Your task to perform on an android device: open sync settings in chrome Image 0: 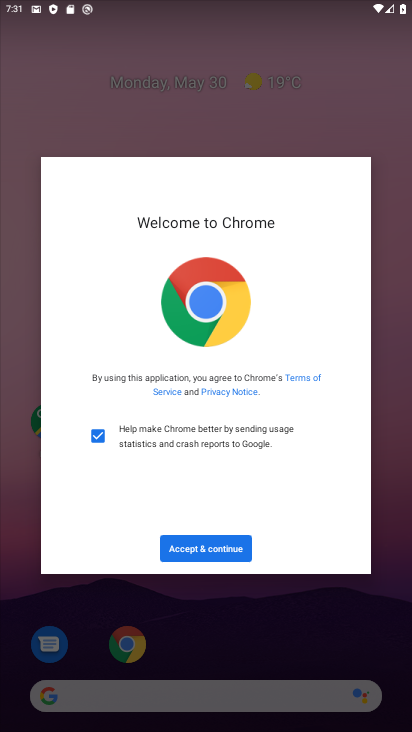
Step 0: click (170, 550)
Your task to perform on an android device: open sync settings in chrome Image 1: 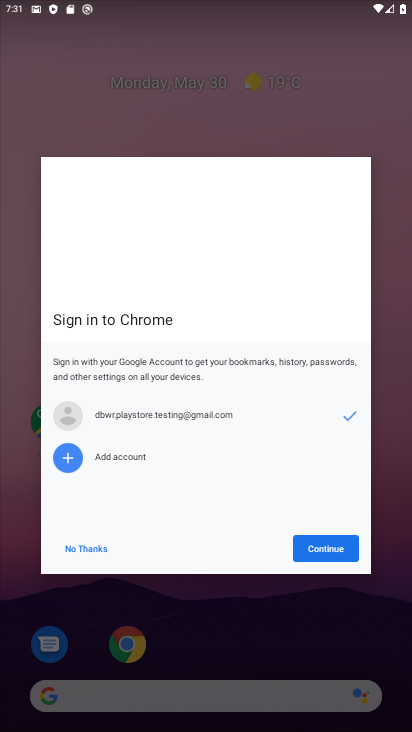
Step 1: click (335, 549)
Your task to perform on an android device: open sync settings in chrome Image 2: 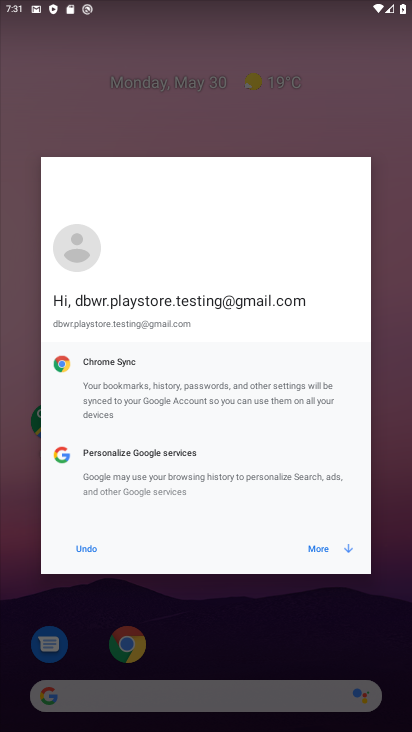
Step 2: click (322, 554)
Your task to perform on an android device: open sync settings in chrome Image 3: 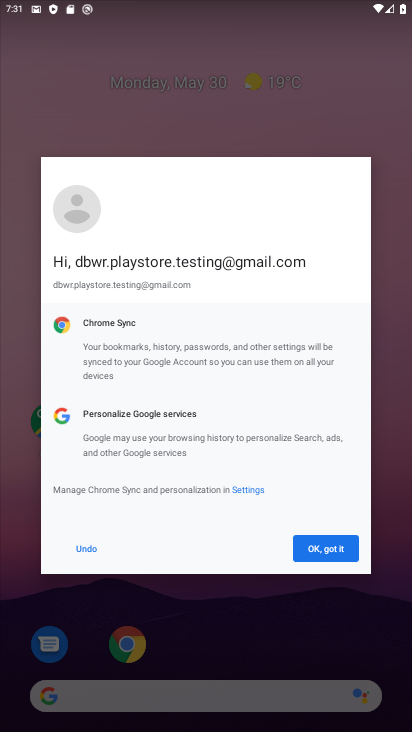
Step 3: click (322, 551)
Your task to perform on an android device: open sync settings in chrome Image 4: 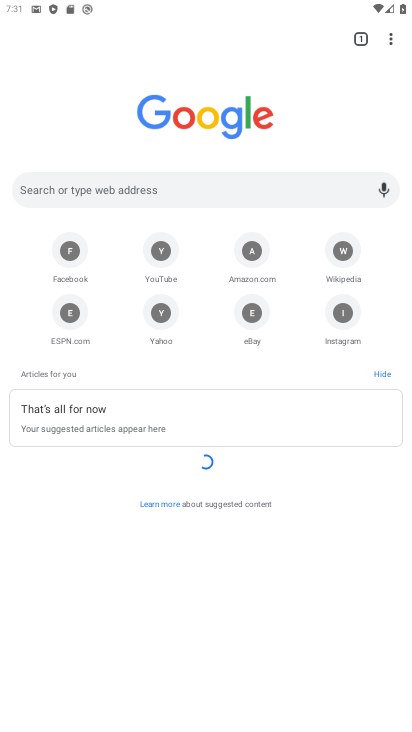
Step 4: press home button
Your task to perform on an android device: open sync settings in chrome Image 5: 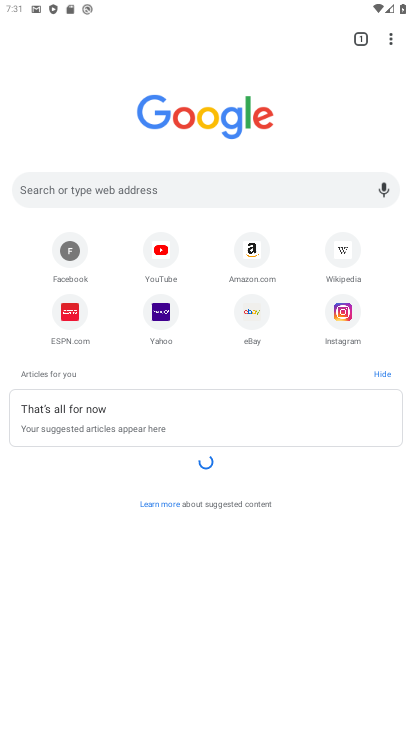
Step 5: press home button
Your task to perform on an android device: open sync settings in chrome Image 6: 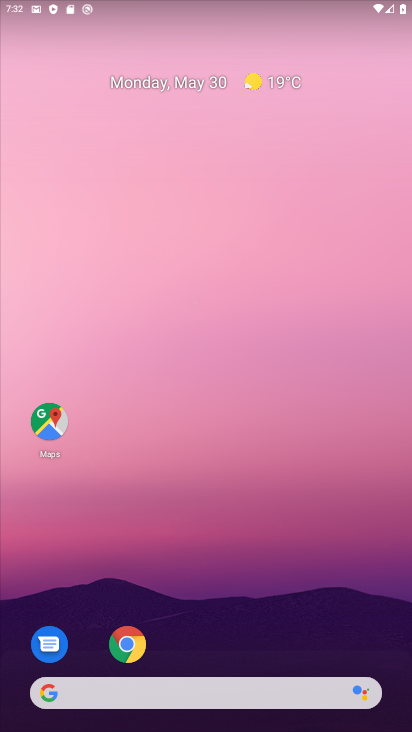
Step 6: drag from (221, 626) to (247, 26)
Your task to perform on an android device: open sync settings in chrome Image 7: 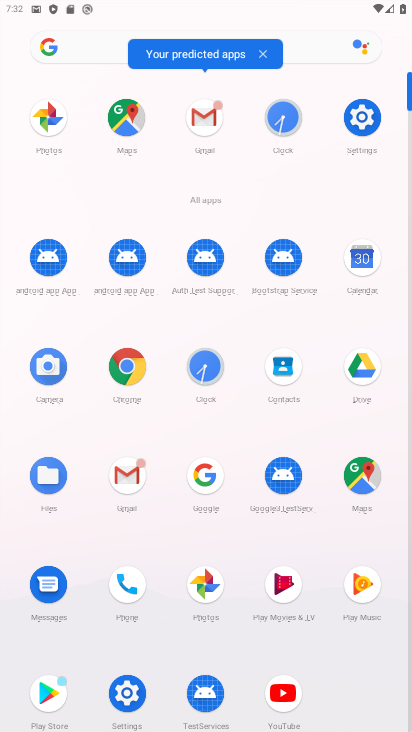
Step 7: drag from (240, 634) to (277, 117)
Your task to perform on an android device: open sync settings in chrome Image 8: 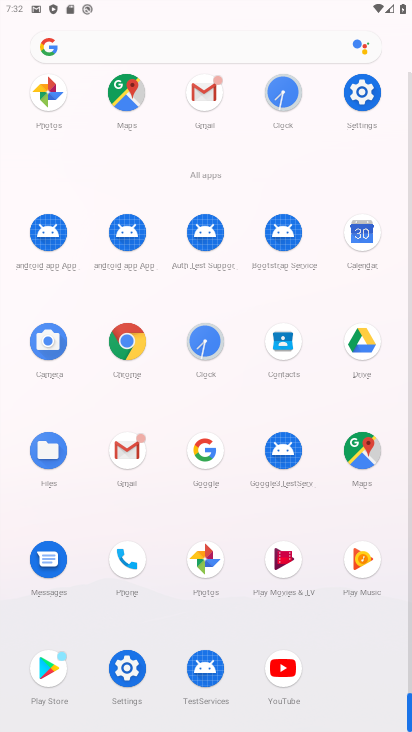
Step 8: click (128, 341)
Your task to perform on an android device: open sync settings in chrome Image 9: 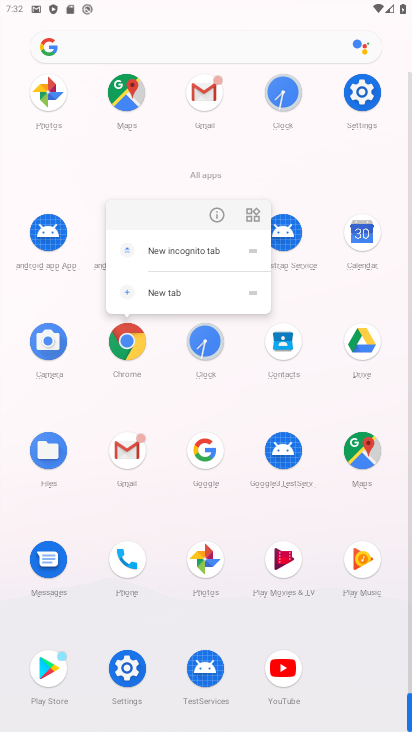
Step 9: click (195, 224)
Your task to perform on an android device: open sync settings in chrome Image 10: 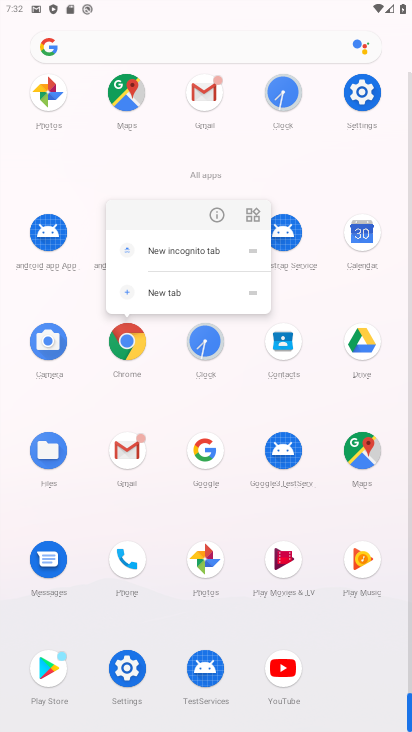
Step 10: click (220, 212)
Your task to perform on an android device: open sync settings in chrome Image 11: 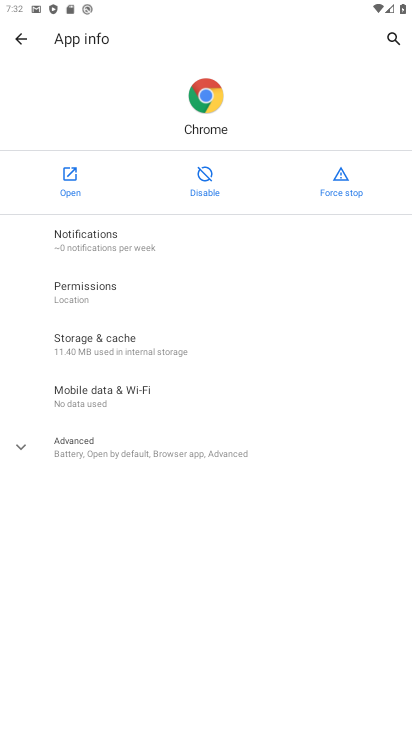
Step 11: click (74, 202)
Your task to perform on an android device: open sync settings in chrome Image 12: 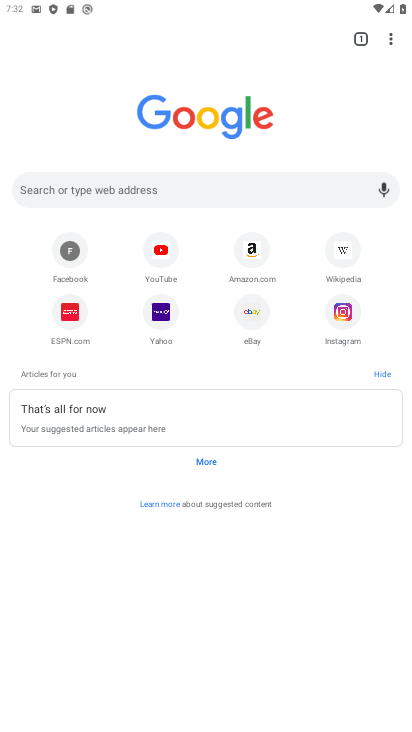
Step 12: drag from (392, 38) to (311, 322)
Your task to perform on an android device: open sync settings in chrome Image 13: 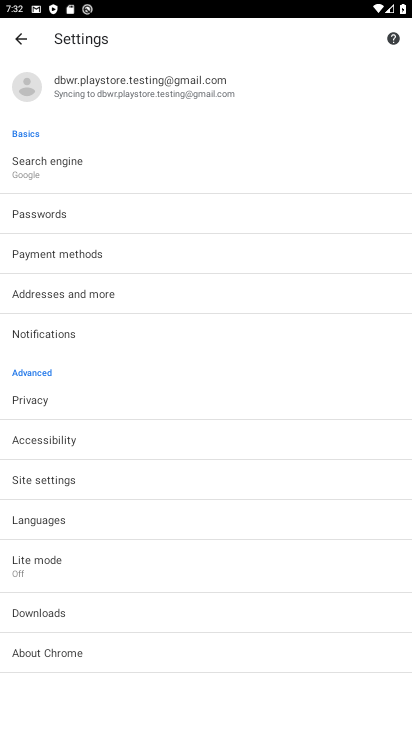
Step 13: click (115, 477)
Your task to perform on an android device: open sync settings in chrome Image 14: 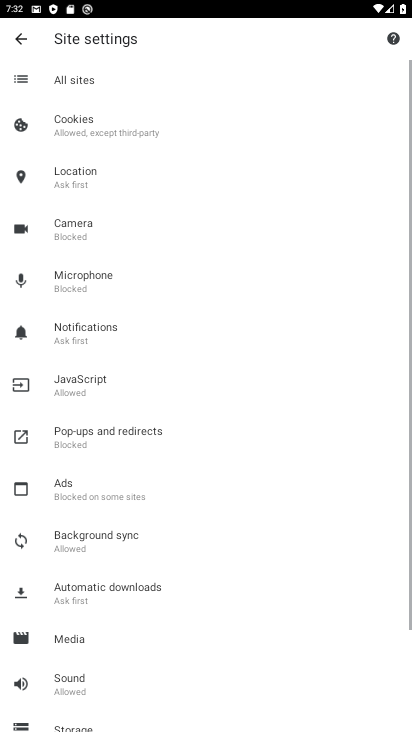
Step 14: drag from (188, 551) to (304, 182)
Your task to perform on an android device: open sync settings in chrome Image 15: 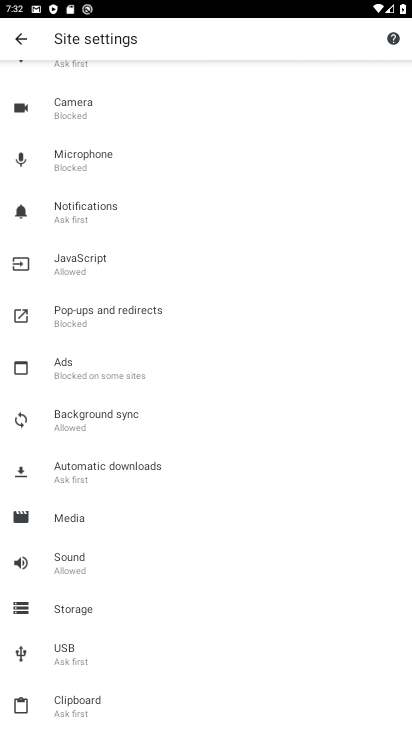
Step 15: click (133, 426)
Your task to perform on an android device: open sync settings in chrome Image 16: 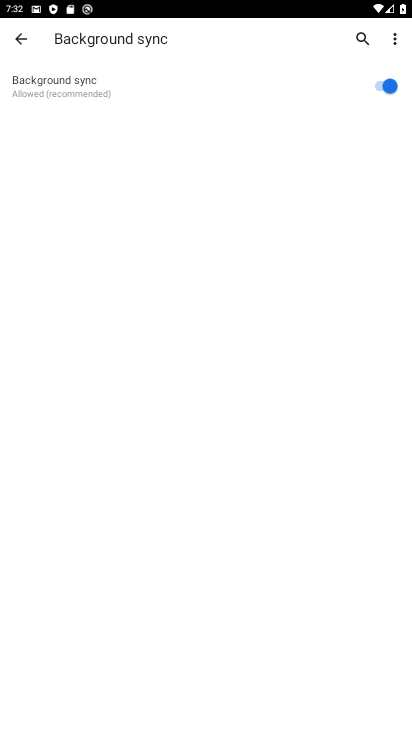
Step 16: task complete